Your task to perform on an android device: turn on sleep mode Image 0: 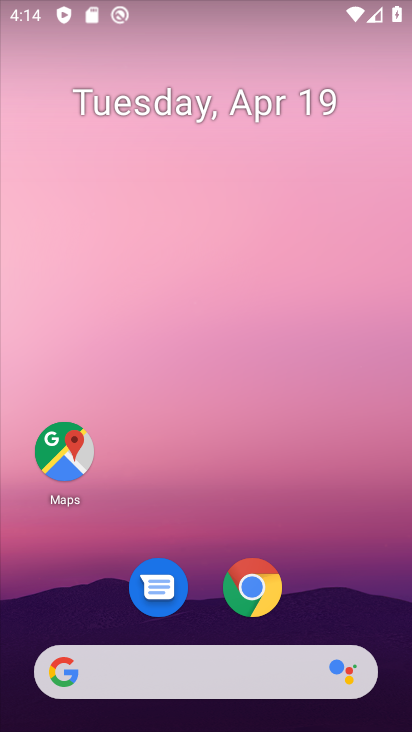
Step 0: drag from (347, 574) to (212, 20)
Your task to perform on an android device: turn on sleep mode Image 1: 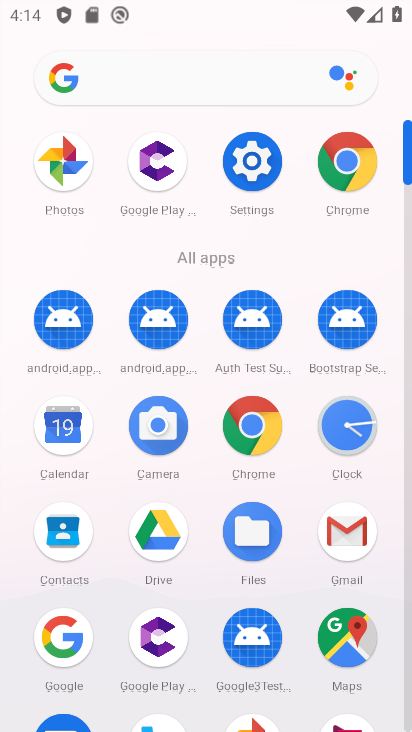
Step 1: drag from (5, 451) to (0, 191)
Your task to perform on an android device: turn on sleep mode Image 2: 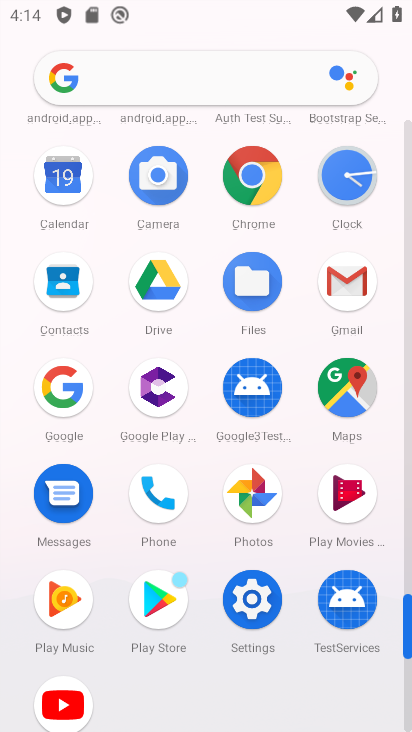
Step 2: click (254, 596)
Your task to perform on an android device: turn on sleep mode Image 3: 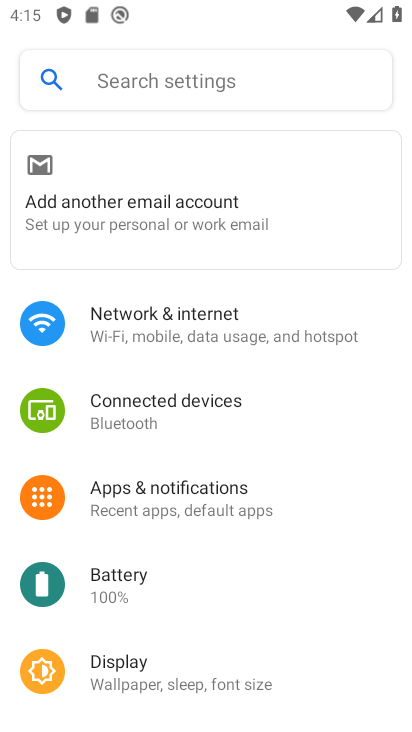
Step 3: click (222, 320)
Your task to perform on an android device: turn on sleep mode Image 4: 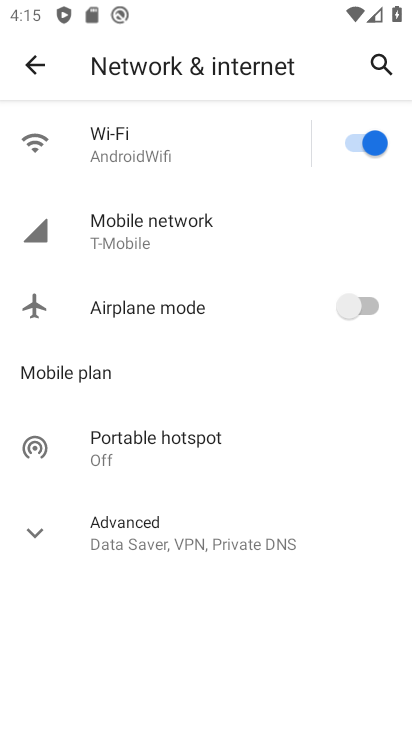
Step 4: click (37, 527)
Your task to perform on an android device: turn on sleep mode Image 5: 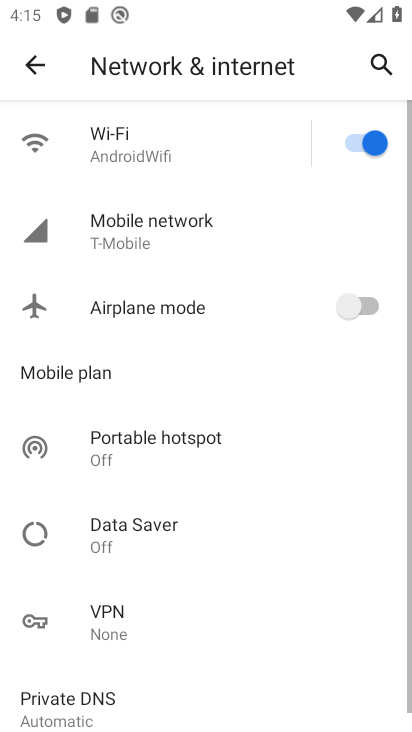
Step 5: drag from (210, 517) to (214, 94)
Your task to perform on an android device: turn on sleep mode Image 6: 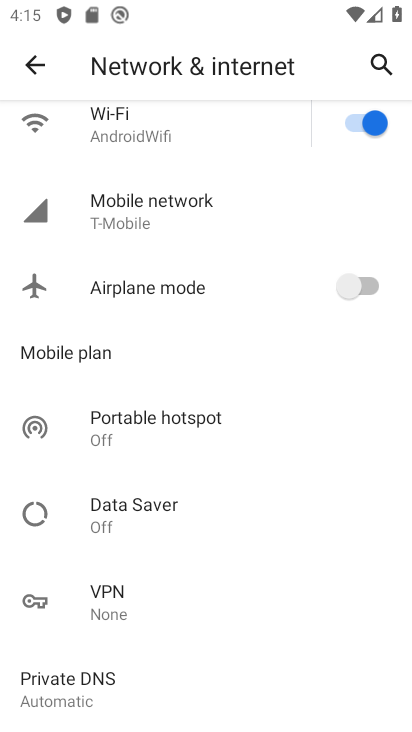
Step 6: drag from (233, 274) to (245, 560)
Your task to perform on an android device: turn on sleep mode Image 7: 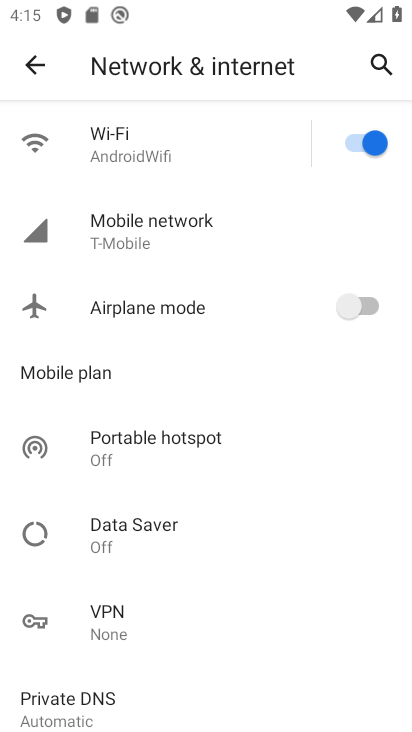
Step 7: drag from (232, 436) to (222, 116)
Your task to perform on an android device: turn on sleep mode Image 8: 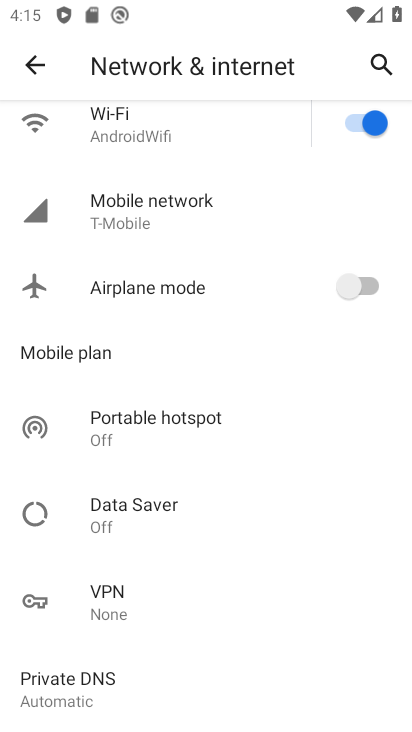
Step 8: click (31, 61)
Your task to perform on an android device: turn on sleep mode Image 9: 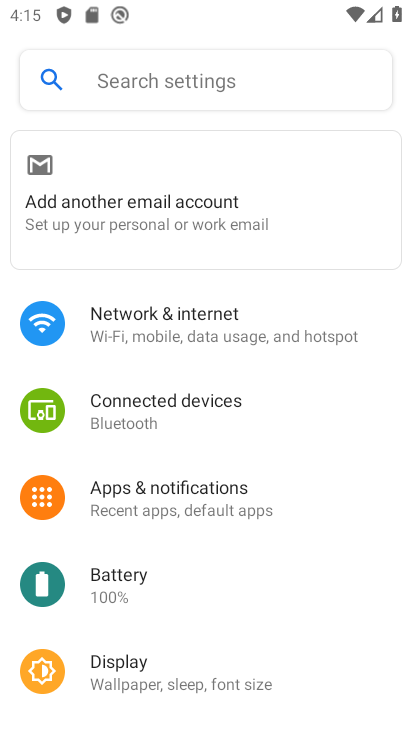
Step 9: drag from (269, 519) to (277, 169)
Your task to perform on an android device: turn on sleep mode Image 10: 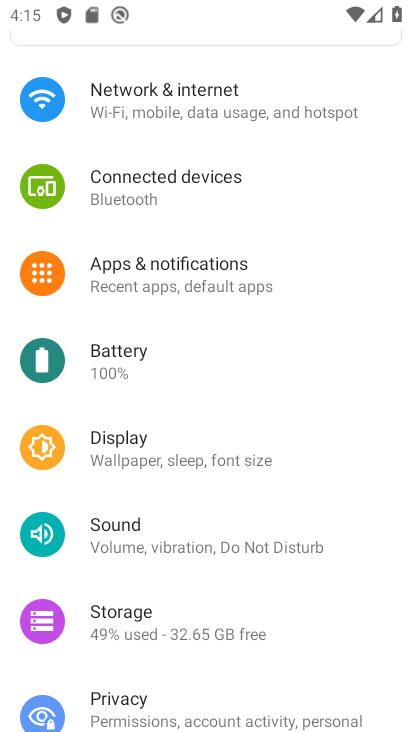
Step 10: click (198, 434)
Your task to perform on an android device: turn on sleep mode Image 11: 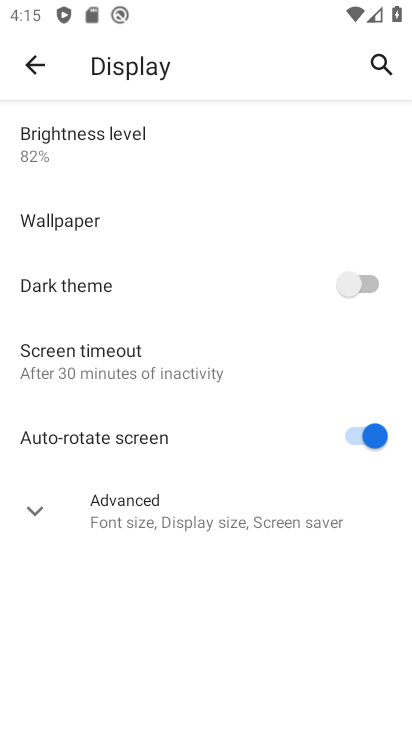
Step 11: click (39, 507)
Your task to perform on an android device: turn on sleep mode Image 12: 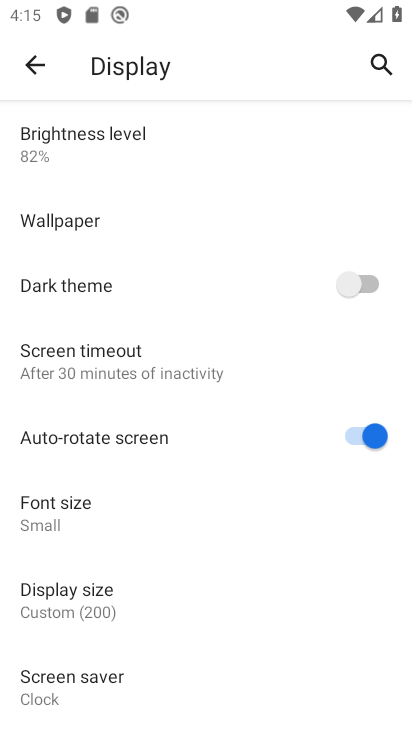
Step 12: task complete